Your task to perform on an android device: Do I have any events today? Image 0: 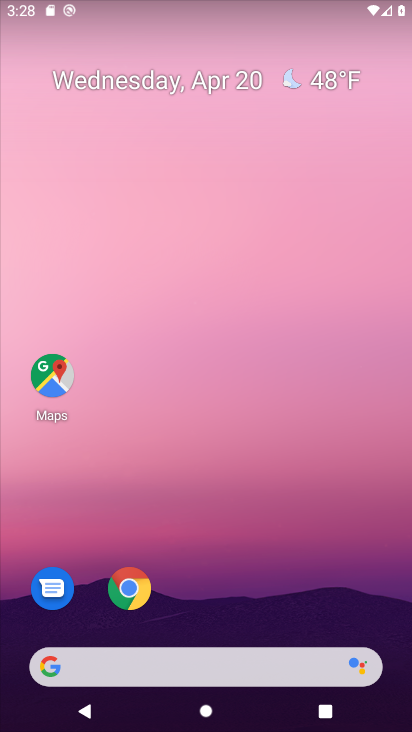
Step 0: drag from (351, 580) to (356, 179)
Your task to perform on an android device: Do I have any events today? Image 1: 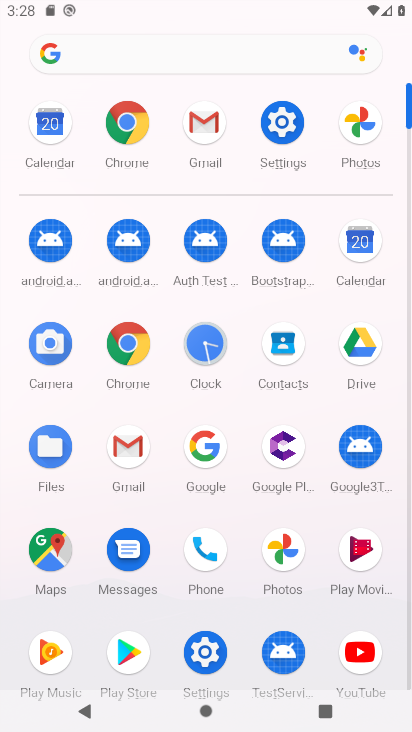
Step 1: click (360, 242)
Your task to perform on an android device: Do I have any events today? Image 2: 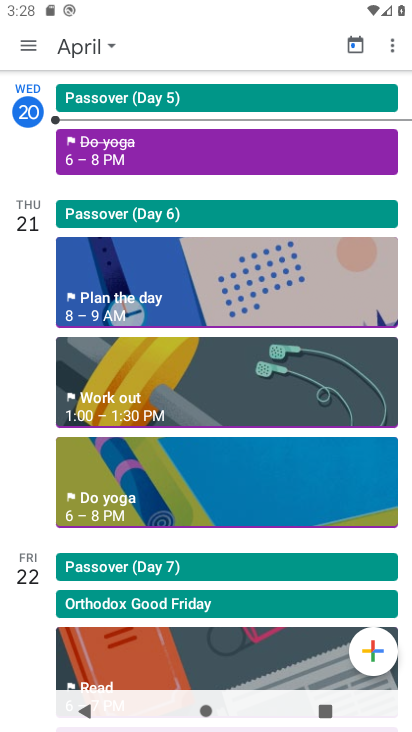
Step 2: click (175, 149)
Your task to perform on an android device: Do I have any events today? Image 3: 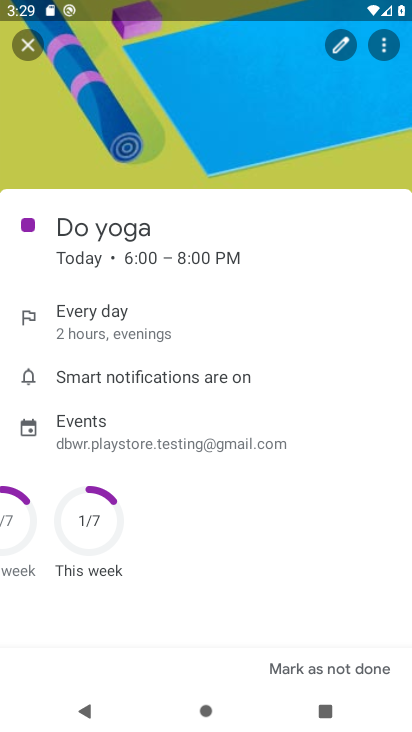
Step 3: task complete